Your task to perform on an android device: turn notification dots on Image 0: 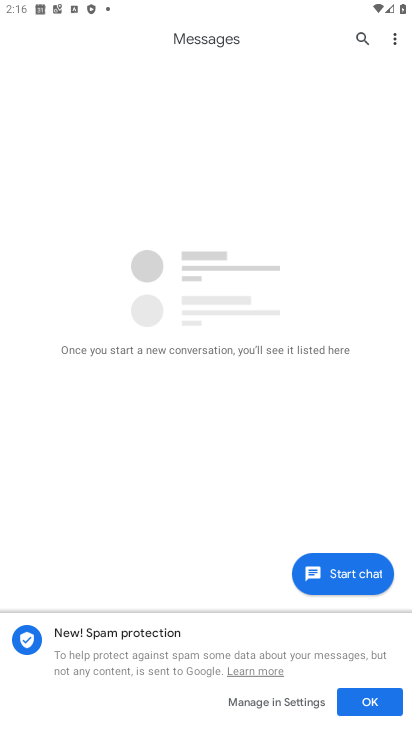
Step 0: press home button
Your task to perform on an android device: turn notification dots on Image 1: 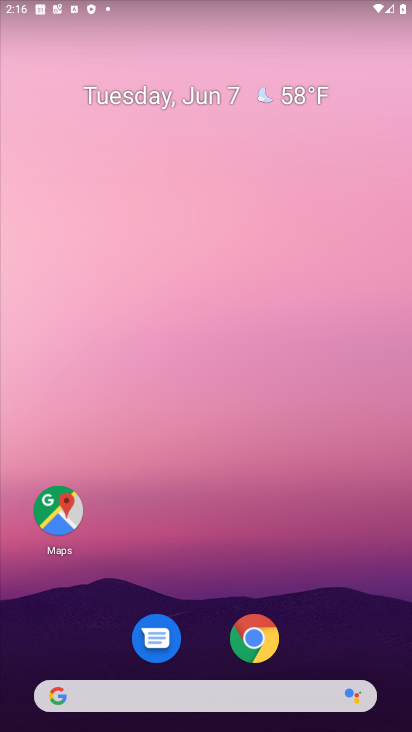
Step 1: drag from (218, 350) to (233, 216)
Your task to perform on an android device: turn notification dots on Image 2: 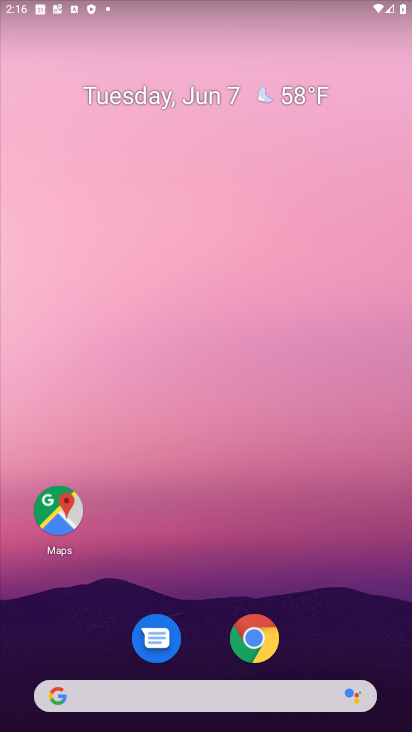
Step 2: drag from (215, 663) to (217, 313)
Your task to perform on an android device: turn notification dots on Image 3: 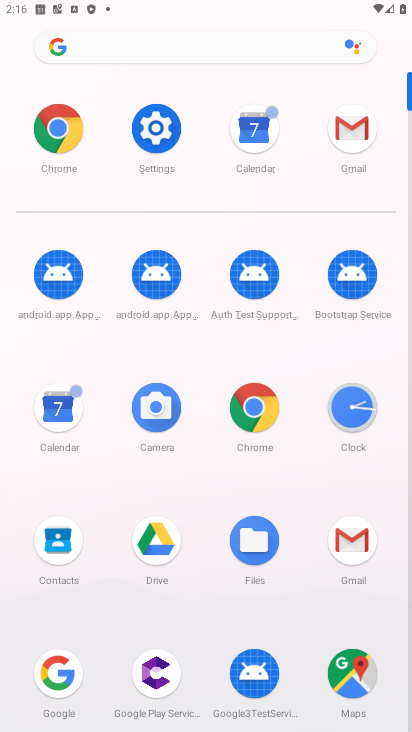
Step 3: click (162, 128)
Your task to perform on an android device: turn notification dots on Image 4: 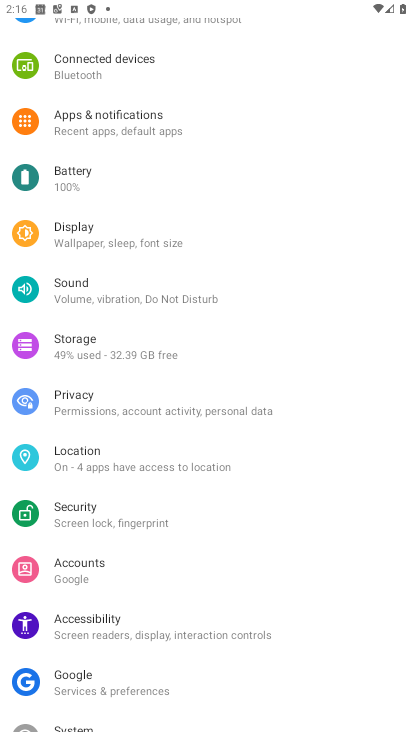
Step 4: click (132, 136)
Your task to perform on an android device: turn notification dots on Image 5: 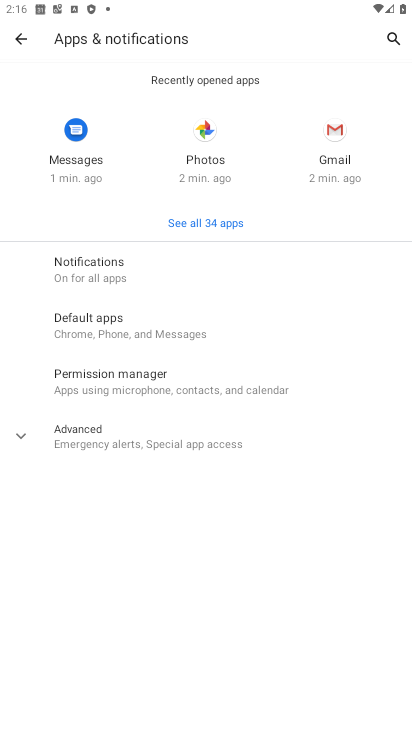
Step 5: click (135, 274)
Your task to perform on an android device: turn notification dots on Image 6: 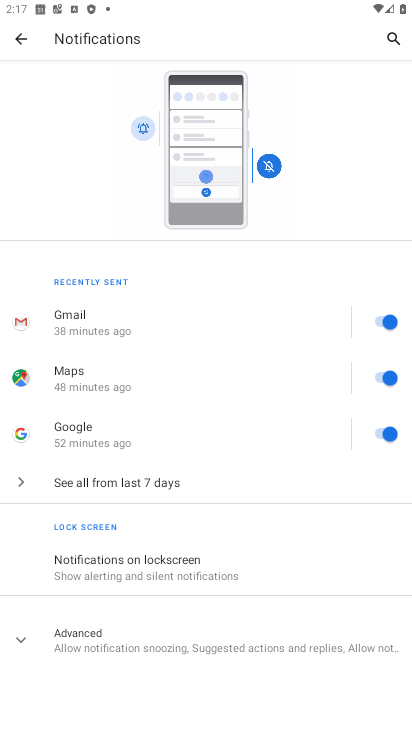
Step 6: click (111, 647)
Your task to perform on an android device: turn notification dots on Image 7: 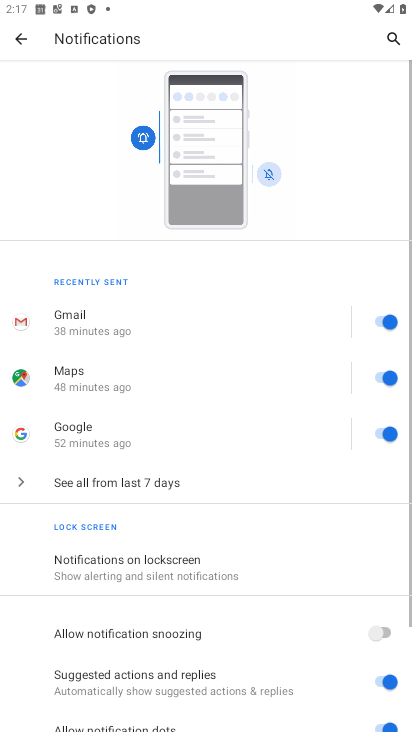
Step 7: task complete